Your task to perform on an android device: Go to Google maps Image 0: 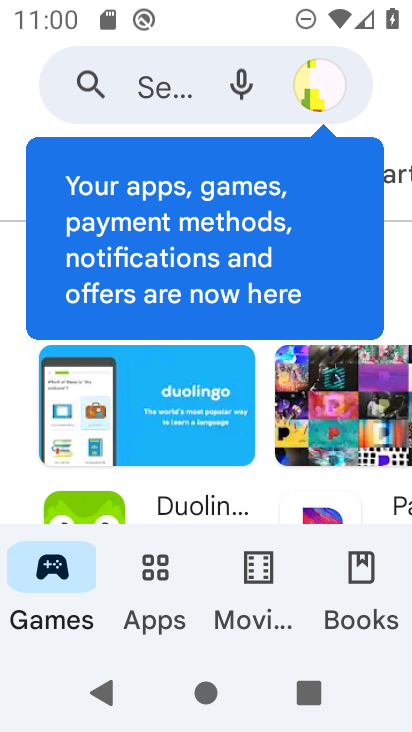
Step 0: press home button
Your task to perform on an android device: Go to Google maps Image 1: 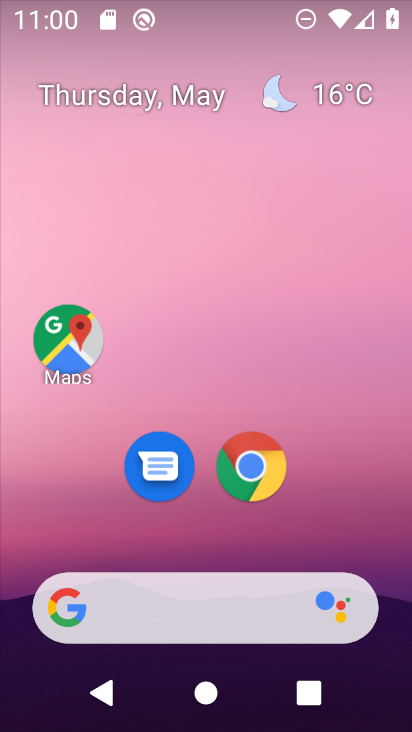
Step 1: click (64, 345)
Your task to perform on an android device: Go to Google maps Image 2: 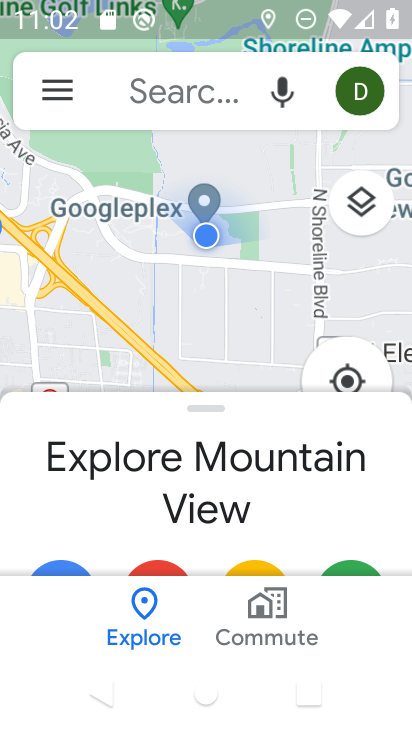
Step 2: task complete